Your task to perform on an android device: Open eBay Image 0: 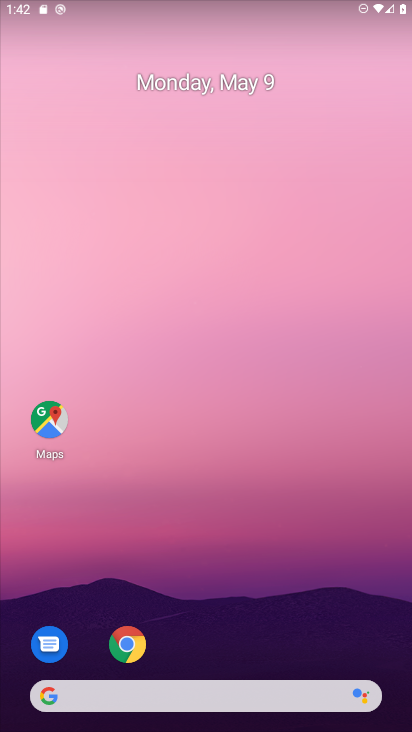
Step 0: click (125, 652)
Your task to perform on an android device: Open eBay Image 1: 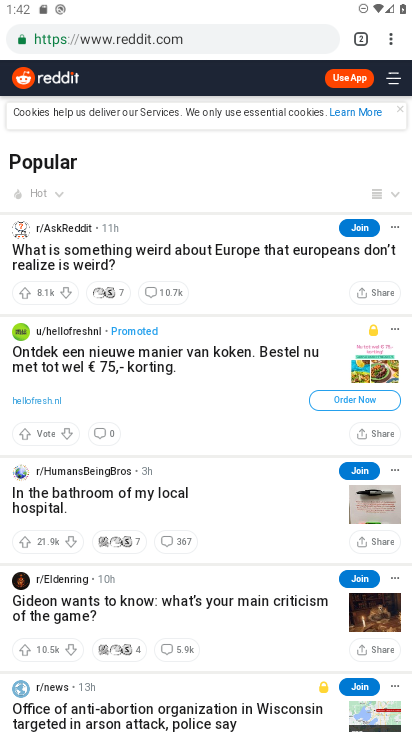
Step 1: click (133, 27)
Your task to perform on an android device: Open eBay Image 2: 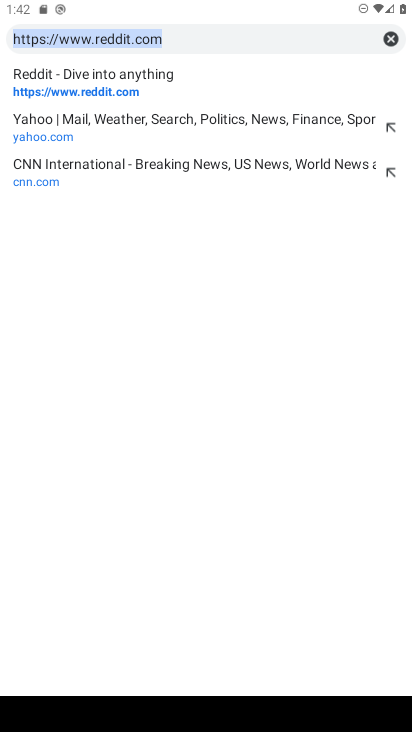
Step 2: type "www.ebay.com"
Your task to perform on an android device: Open eBay Image 3: 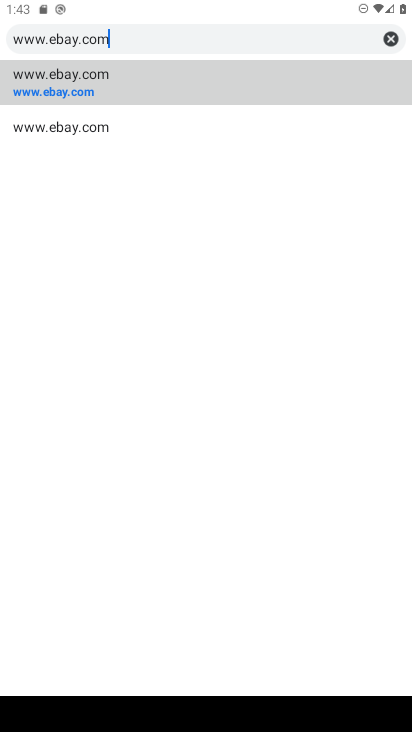
Step 3: click (42, 96)
Your task to perform on an android device: Open eBay Image 4: 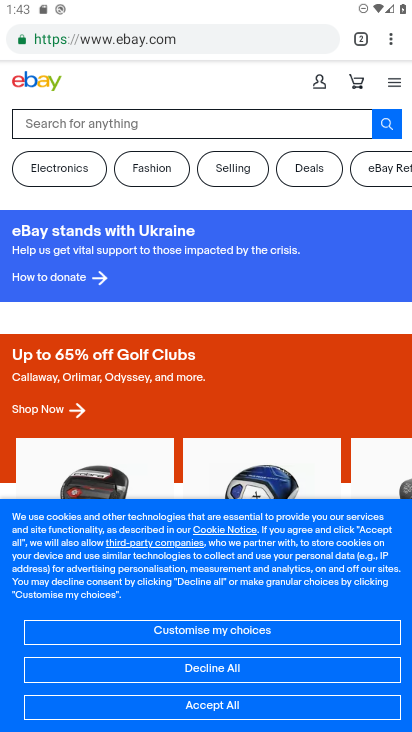
Step 4: task complete